Your task to perform on an android device: What is the recent news? Image 0: 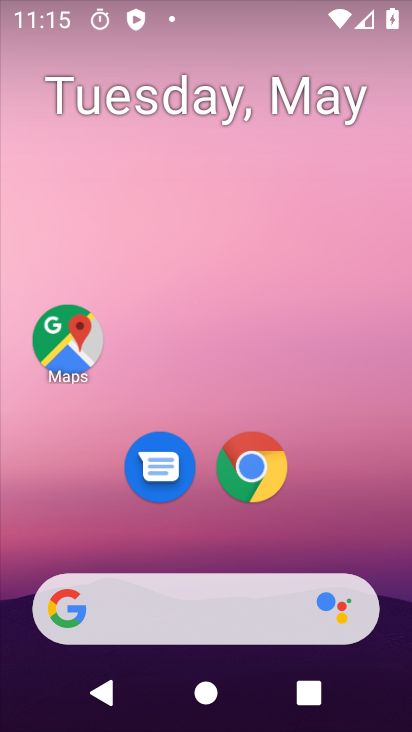
Step 0: drag from (337, 440) to (257, 13)
Your task to perform on an android device: What is the recent news? Image 1: 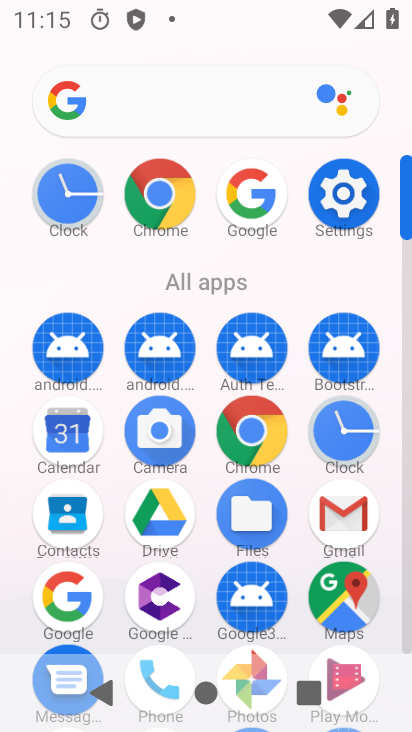
Step 1: drag from (4, 545) to (1, 258)
Your task to perform on an android device: What is the recent news? Image 2: 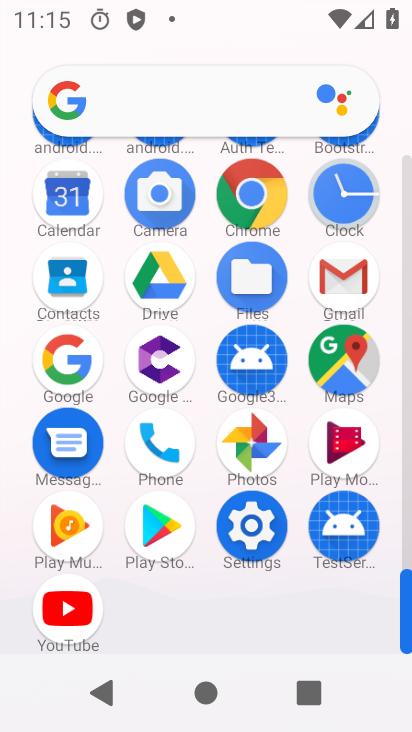
Step 2: click (255, 197)
Your task to perform on an android device: What is the recent news? Image 3: 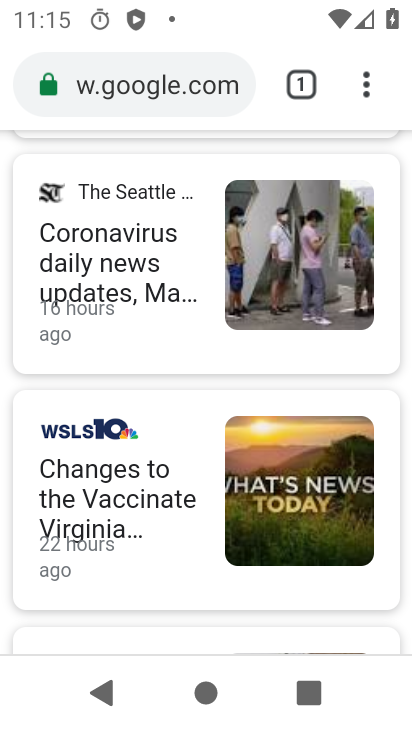
Step 3: click (183, 93)
Your task to perform on an android device: What is the recent news? Image 4: 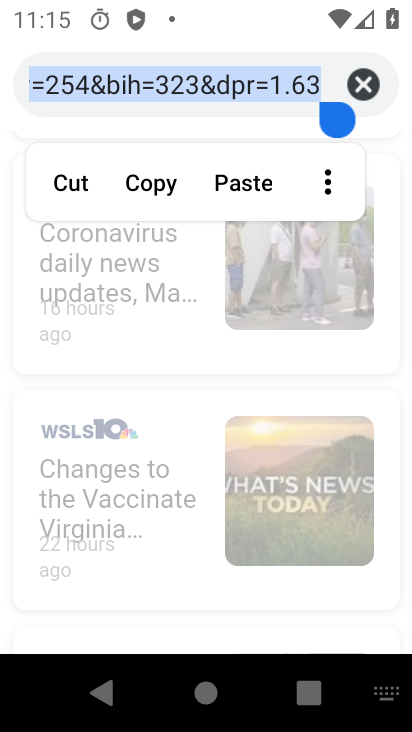
Step 4: click (367, 85)
Your task to perform on an android device: What is the recent news? Image 5: 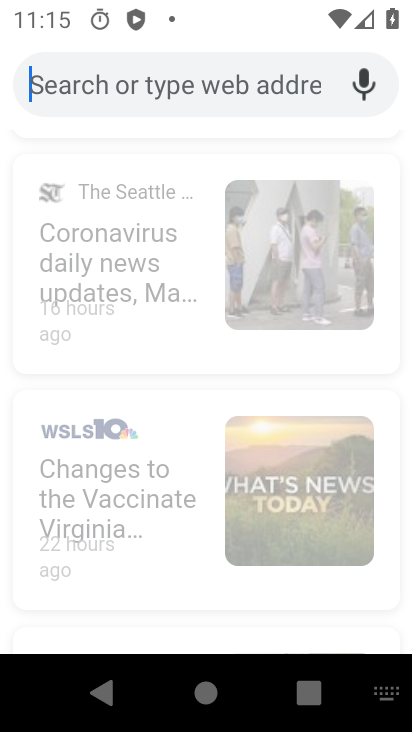
Step 5: type "What is the recent news?"
Your task to perform on an android device: What is the recent news? Image 6: 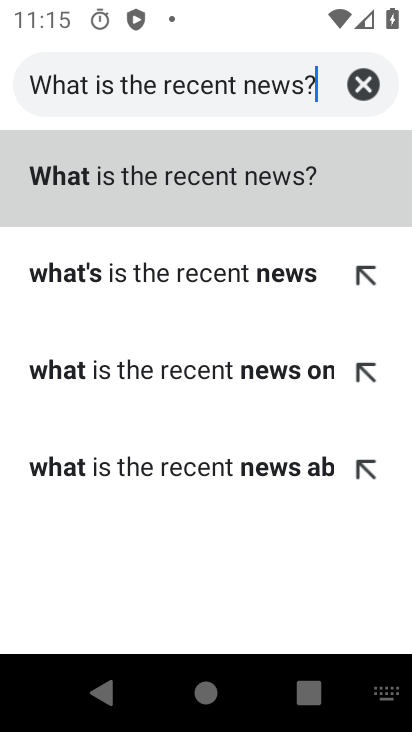
Step 6: click (252, 179)
Your task to perform on an android device: What is the recent news? Image 7: 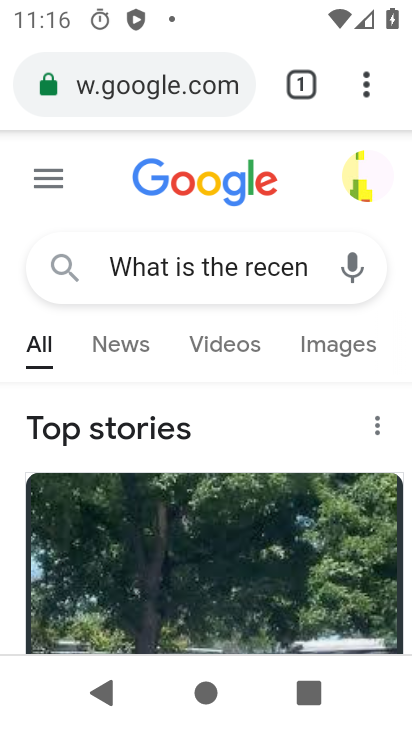
Step 7: drag from (282, 401) to (256, 238)
Your task to perform on an android device: What is the recent news? Image 8: 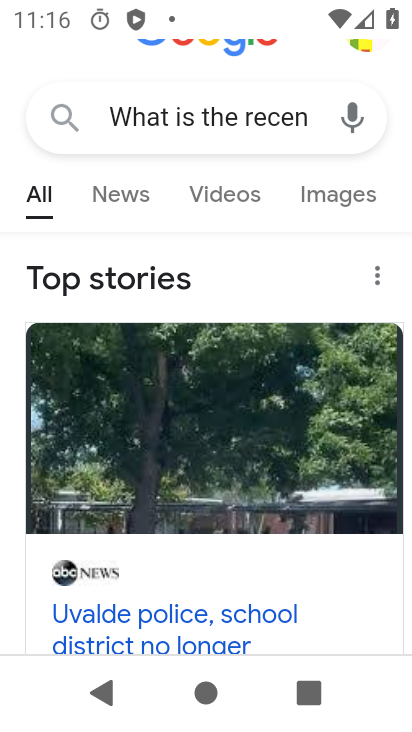
Step 8: click (117, 184)
Your task to perform on an android device: What is the recent news? Image 9: 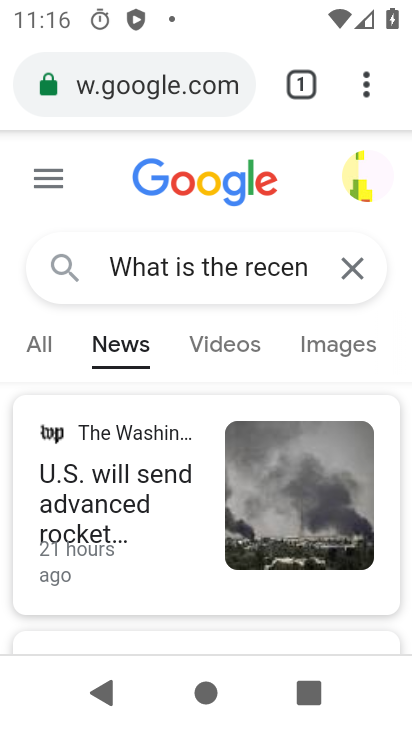
Step 9: task complete